Your task to perform on an android device: Open maps Image 0: 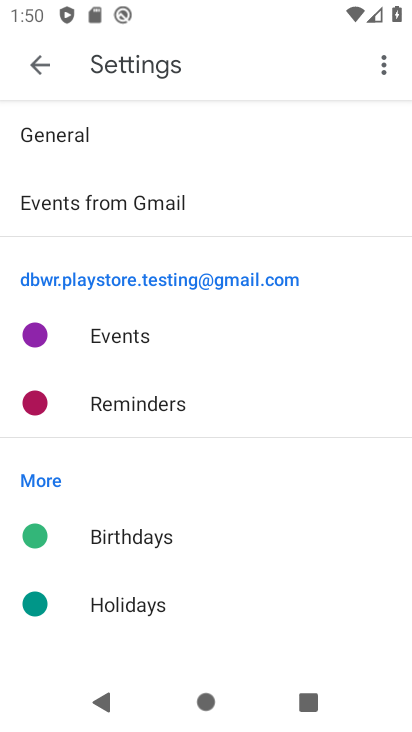
Step 0: press home button
Your task to perform on an android device: Open maps Image 1: 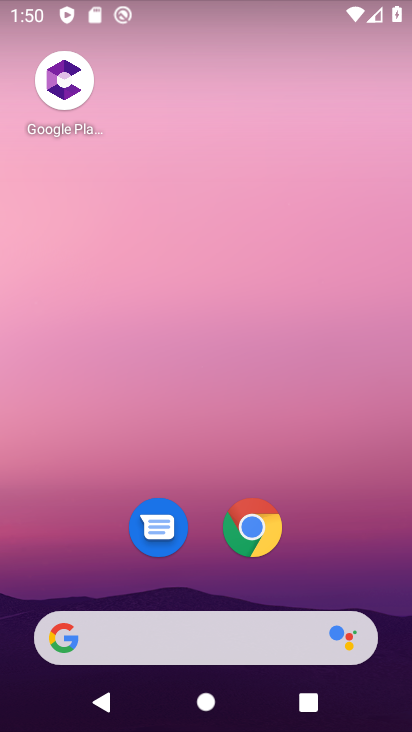
Step 1: drag from (185, 548) to (210, 175)
Your task to perform on an android device: Open maps Image 2: 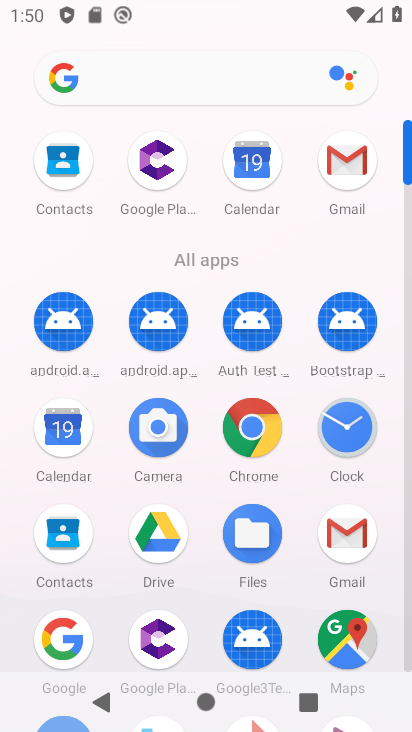
Step 2: click (348, 638)
Your task to perform on an android device: Open maps Image 3: 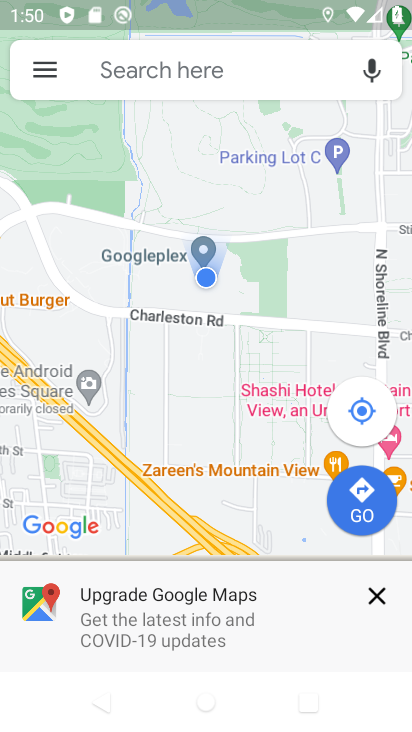
Step 3: task complete